Your task to perform on an android device: What's the news in Suriname? Image 0: 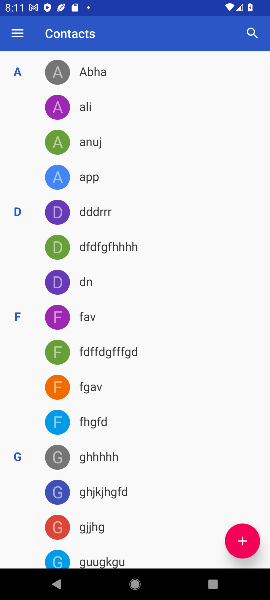
Step 0: press home button
Your task to perform on an android device: What's the news in Suriname? Image 1: 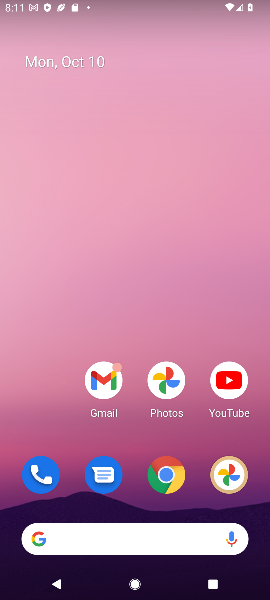
Step 1: click (159, 467)
Your task to perform on an android device: What's the news in Suriname? Image 2: 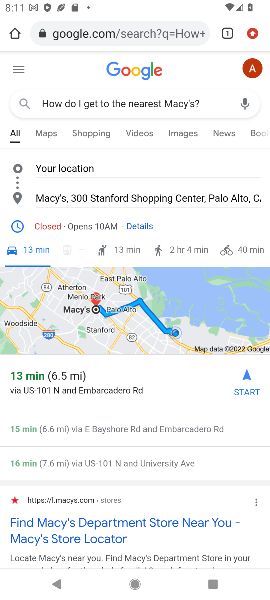
Step 2: click (119, 32)
Your task to perform on an android device: What's the news in Suriname? Image 3: 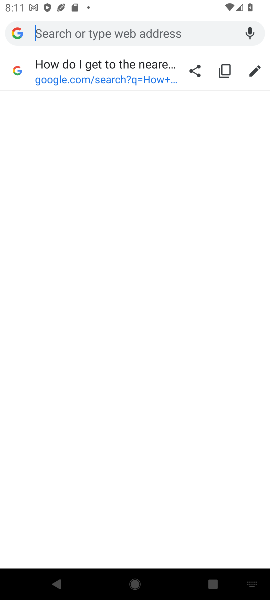
Step 3: type "What's the news in Suriname?"
Your task to perform on an android device: What's the news in Suriname? Image 4: 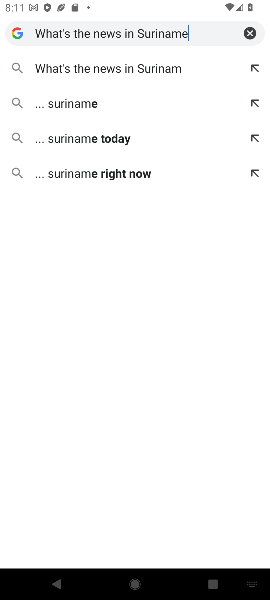
Step 4: click (192, 35)
Your task to perform on an android device: What's the news in Suriname? Image 5: 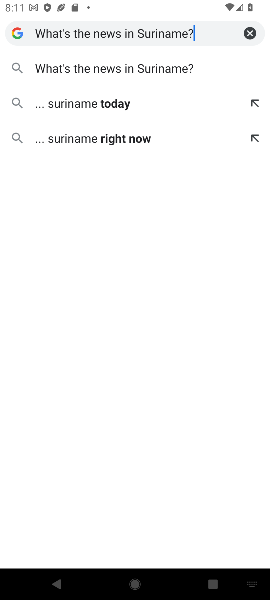
Step 5: click (152, 67)
Your task to perform on an android device: What's the news in Suriname? Image 6: 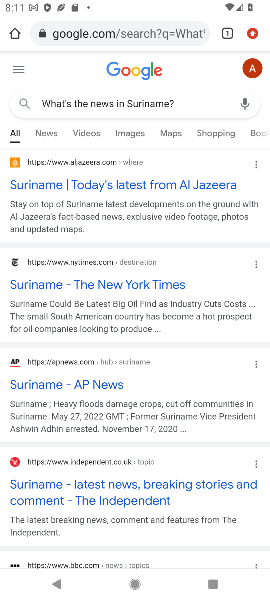
Step 6: click (159, 185)
Your task to perform on an android device: What's the news in Suriname? Image 7: 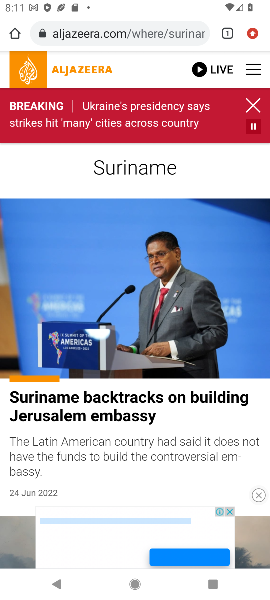
Step 7: task complete